Your task to perform on an android device: Open display settings Image 0: 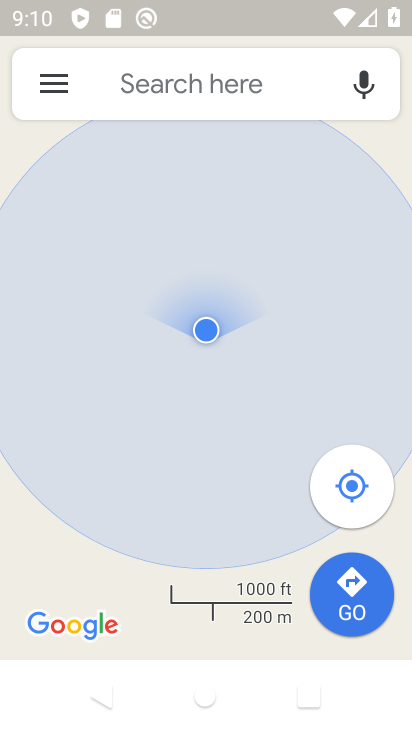
Step 0: press home button
Your task to perform on an android device: Open display settings Image 1: 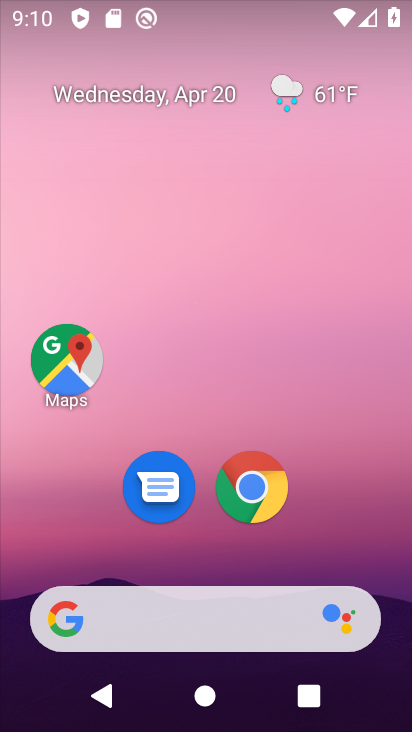
Step 1: drag from (323, 552) to (393, 38)
Your task to perform on an android device: Open display settings Image 2: 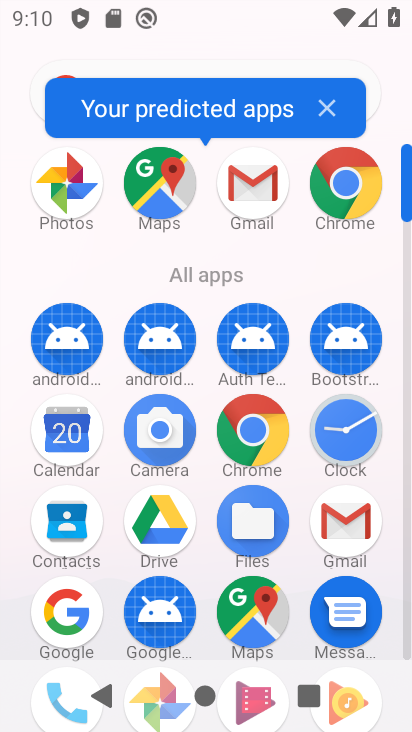
Step 2: drag from (302, 556) to (351, 390)
Your task to perform on an android device: Open display settings Image 3: 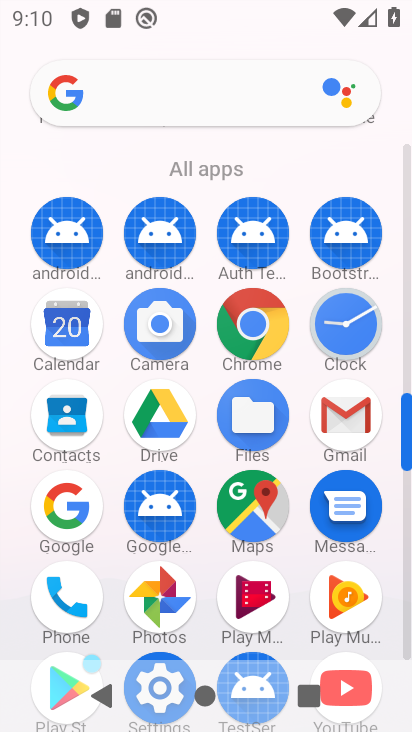
Step 3: drag from (283, 636) to (304, 382)
Your task to perform on an android device: Open display settings Image 4: 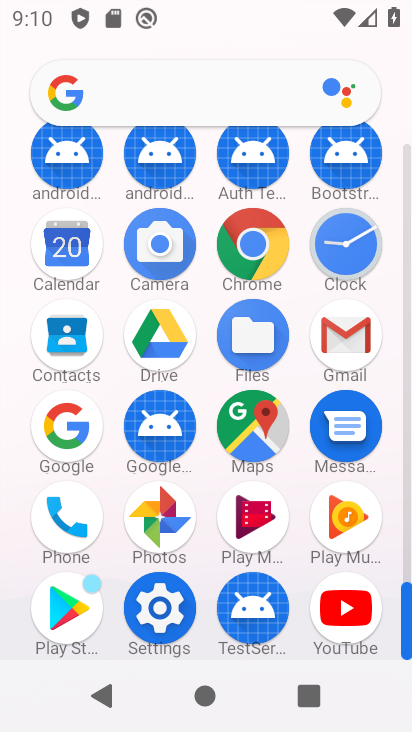
Step 4: click (146, 607)
Your task to perform on an android device: Open display settings Image 5: 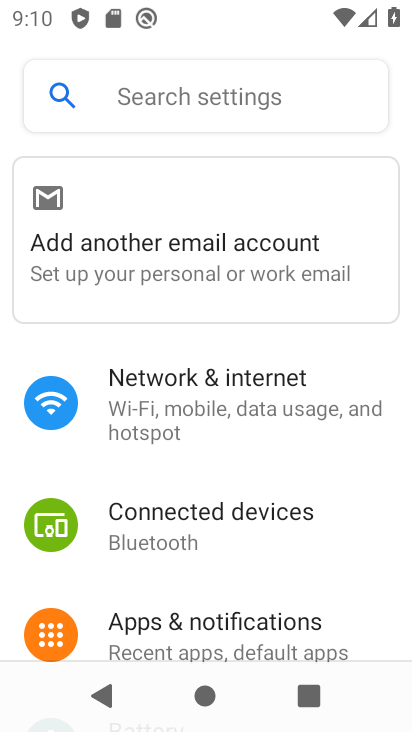
Step 5: drag from (152, 536) to (212, 332)
Your task to perform on an android device: Open display settings Image 6: 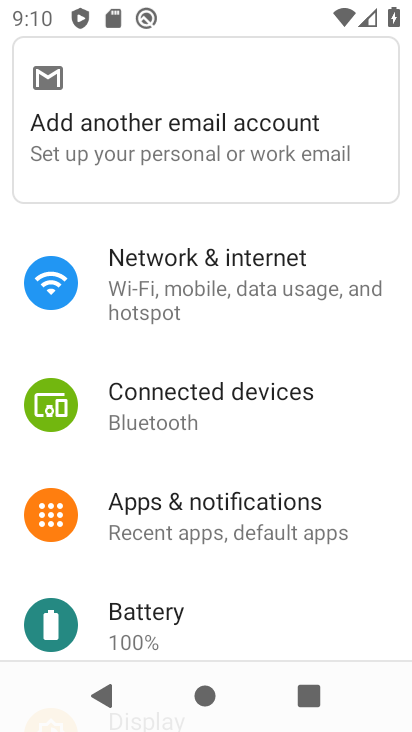
Step 6: drag from (158, 595) to (197, 415)
Your task to perform on an android device: Open display settings Image 7: 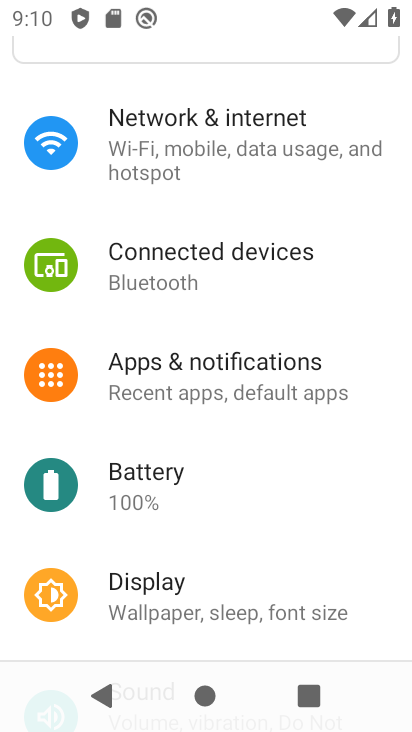
Step 7: click (130, 578)
Your task to perform on an android device: Open display settings Image 8: 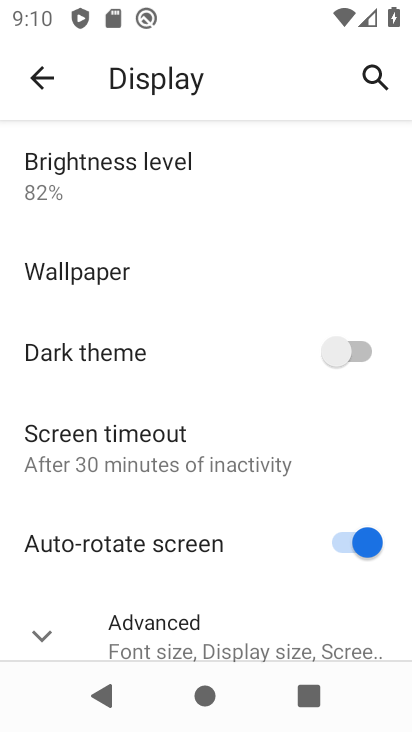
Step 8: task complete